Your task to perform on an android device: Go to Google maps Image 0: 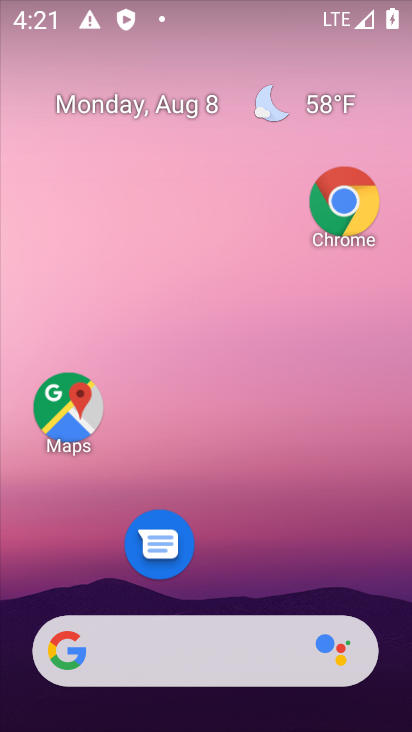
Step 0: drag from (224, 670) to (279, 167)
Your task to perform on an android device: Go to Google maps Image 1: 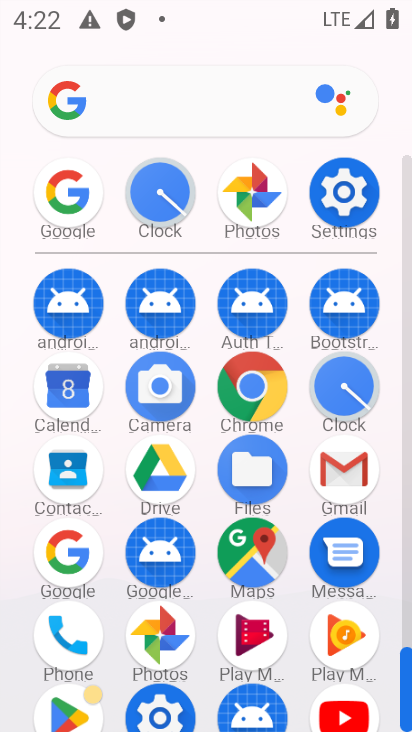
Step 1: drag from (254, 593) to (281, 285)
Your task to perform on an android device: Go to Google maps Image 2: 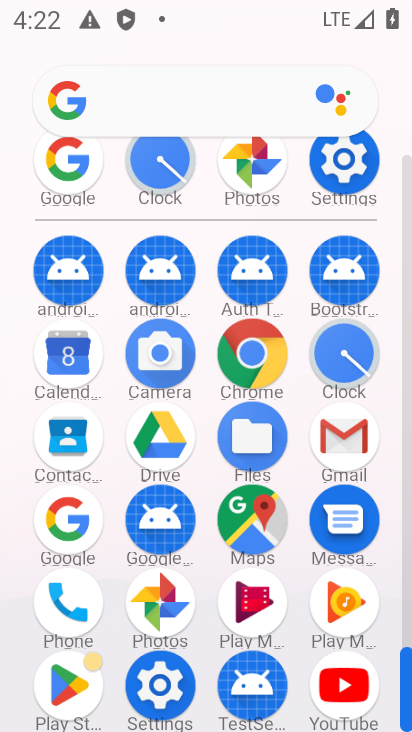
Step 2: click (263, 504)
Your task to perform on an android device: Go to Google maps Image 3: 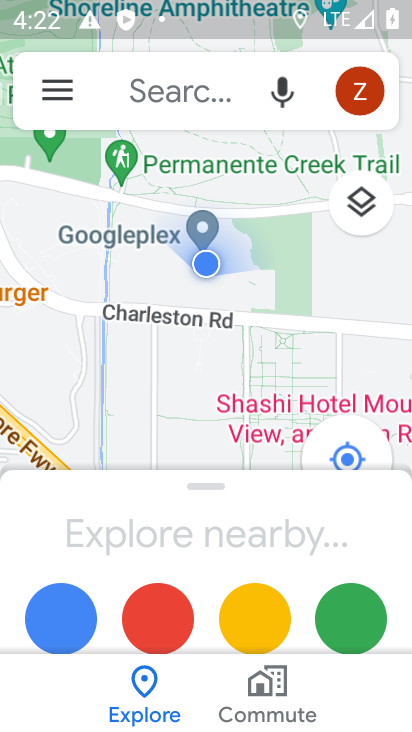
Step 3: task complete